Your task to perform on an android device: snooze an email in the gmail app Image 0: 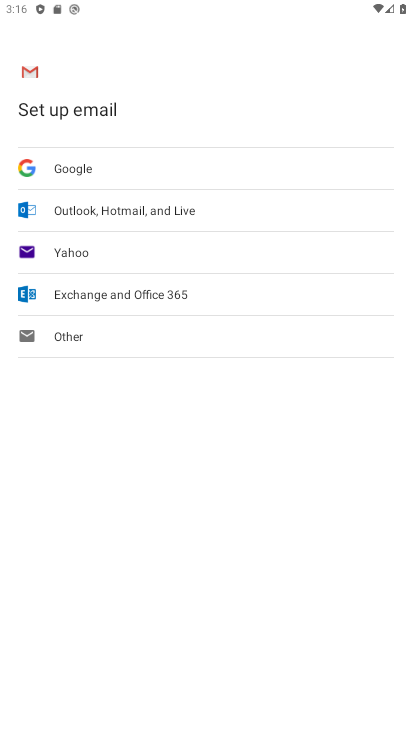
Step 0: press home button
Your task to perform on an android device: snooze an email in the gmail app Image 1: 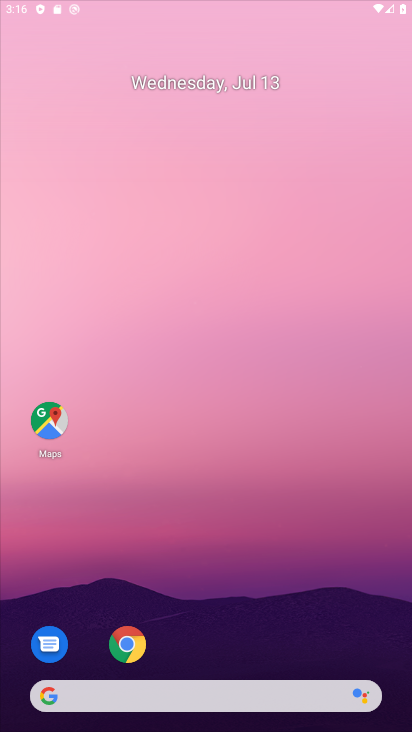
Step 1: drag from (239, 710) to (303, 160)
Your task to perform on an android device: snooze an email in the gmail app Image 2: 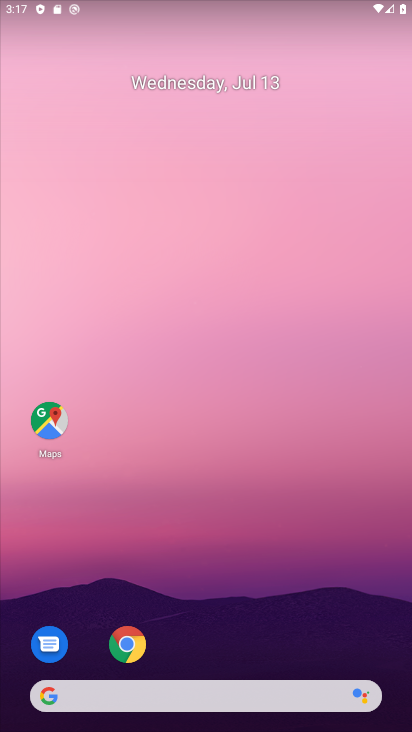
Step 2: drag from (234, 660) to (246, 348)
Your task to perform on an android device: snooze an email in the gmail app Image 3: 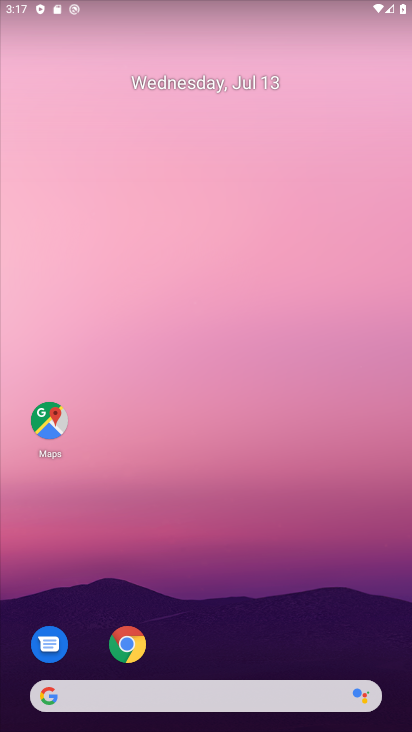
Step 3: drag from (175, 688) to (256, 76)
Your task to perform on an android device: snooze an email in the gmail app Image 4: 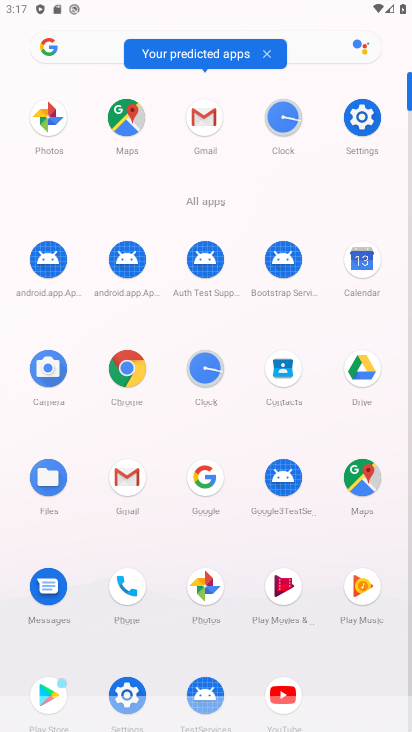
Step 4: click (126, 458)
Your task to perform on an android device: snooze an email in the gmail app Image 5: 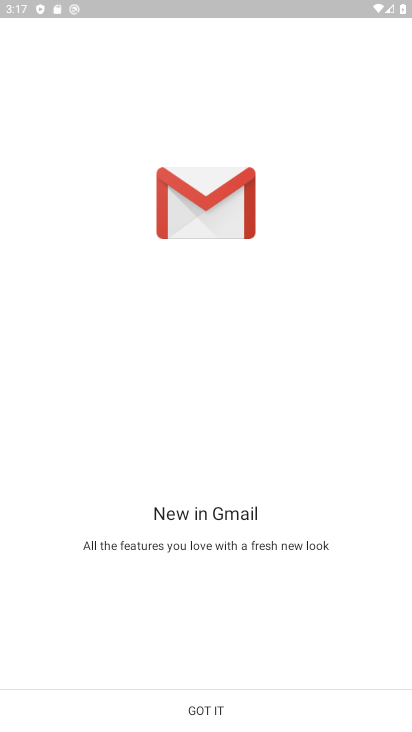
Step 5: click (197, 705)
Your task to perform on an android device: snooze an email in the gmail app Image 6: 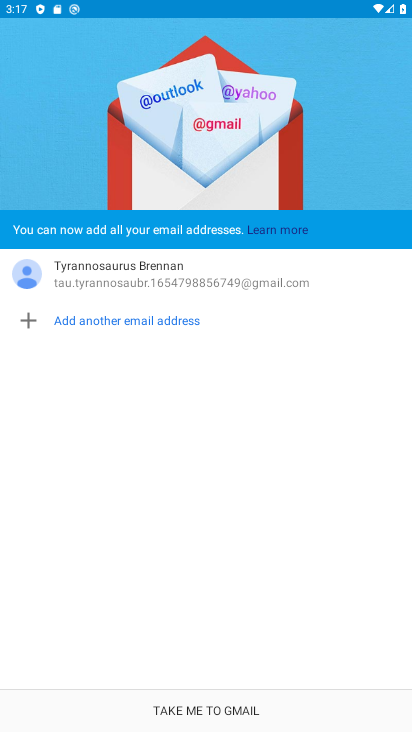
Step 6: click (215, 710)
Your task to perform on an android device: snooze an email in the gmail app Image 7: 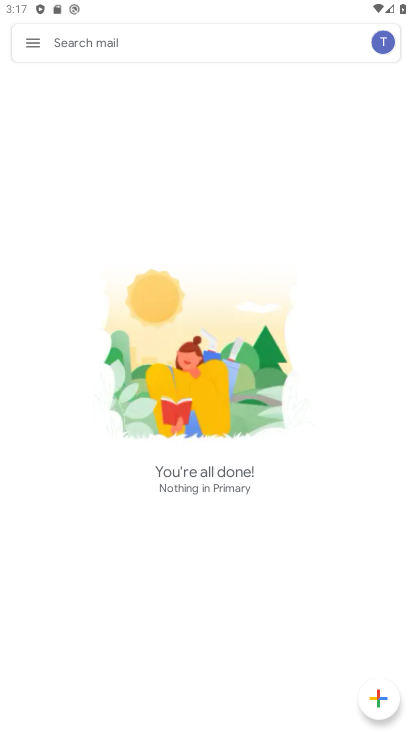
Step 7: click (32, 40)
Your task to perform on an android device: snooze an email in the gmail app Image 8: 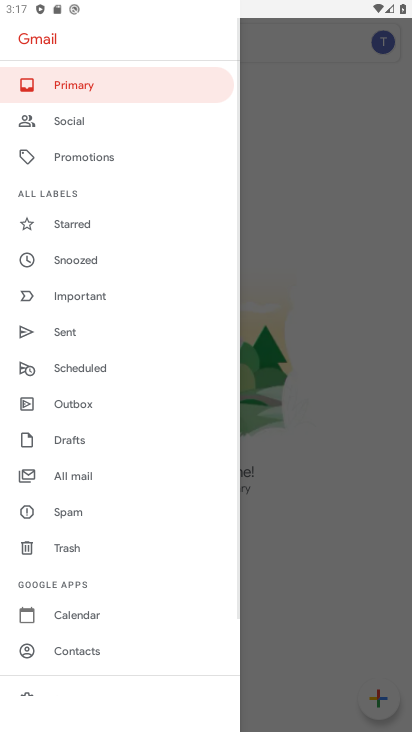
Step 8: click (95, 484)
Your task to perform on an android device: snooze an email in the gmail app Image 9: 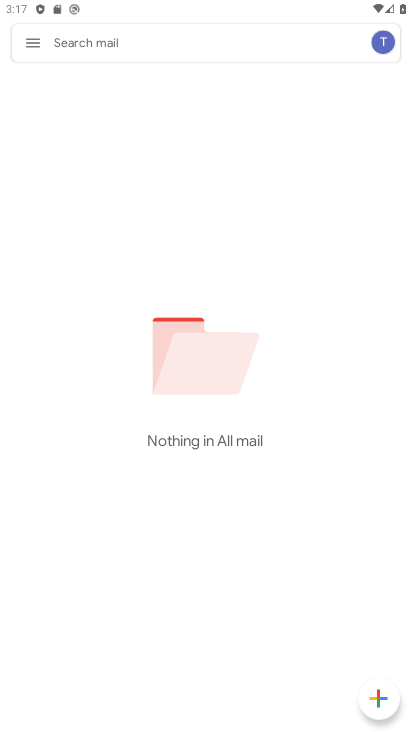
Step 9: task complete